Your task to perform on an android device: check out phone information Image 0: 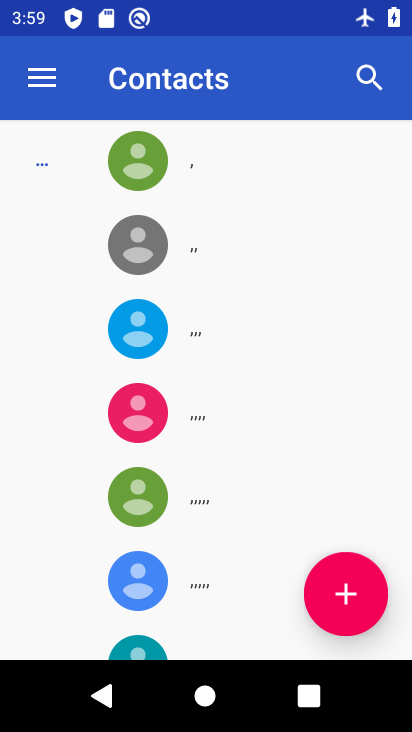
Step 0: press back button
Your task to perform on an android device: check out phone information Image 1: 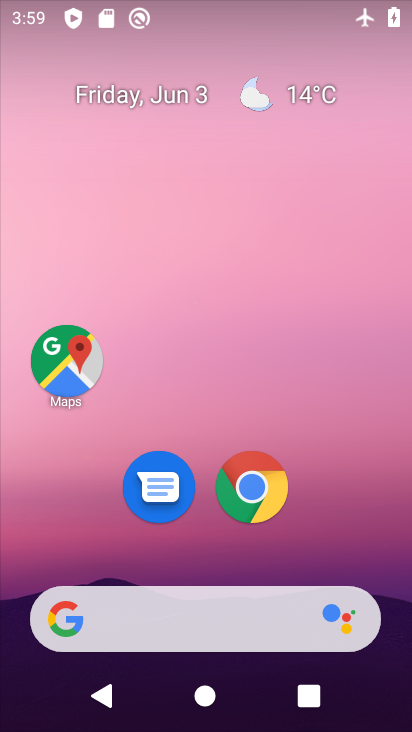
Step 1: drag from (203, 559) to (237, 72)
Your task to perform on an android device: check out phone information Image 2: 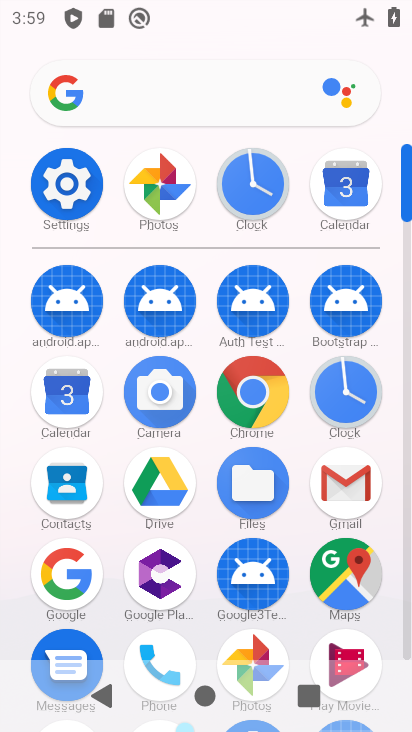
Step 2: click (66, 180)
Your task to perform on an android device: check out phone information Image 3: 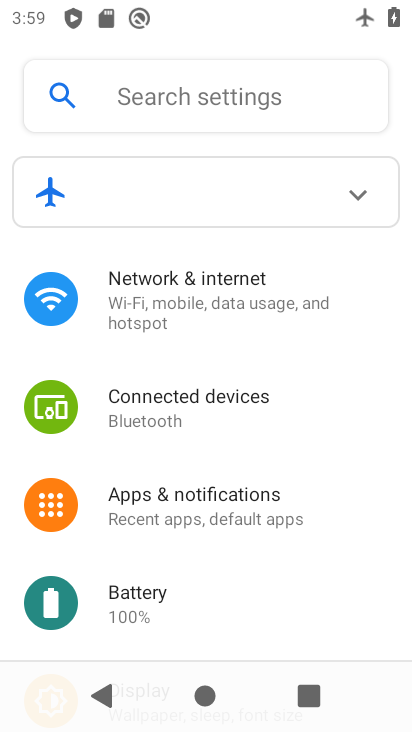
Step 3: drag from (198, 612) to (268, 9)
Your task to perform on an android device: check out phone information Image 4: 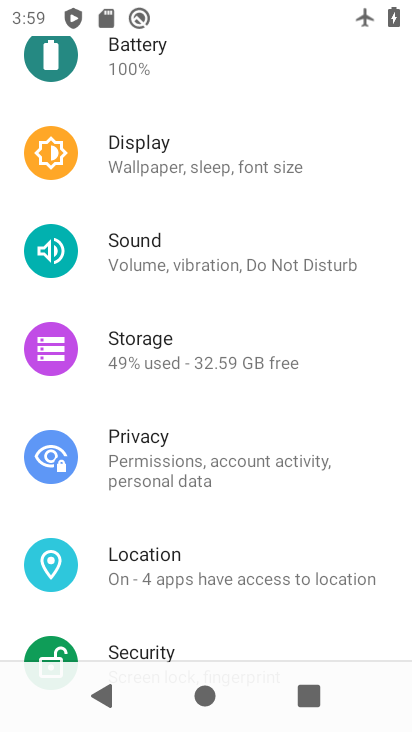
Step 4: drag from (212, 540) to (260, 22)
Your task to perform on an android device: check out phone information Image 5: 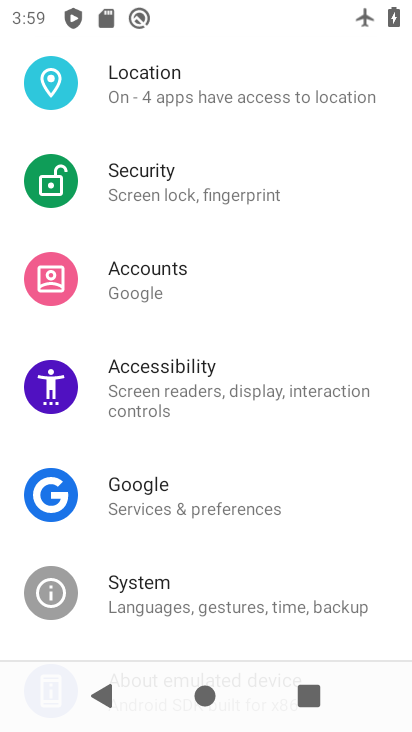
Step 5: drag from (178, 569) to (255, 2)
Your task to perform on an android device: check out phone information Image 6: 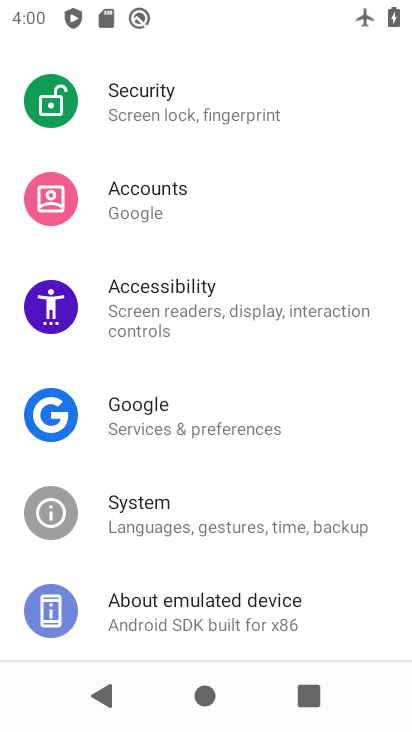
Step 6: drag from (187, 595) to (252, 32)
Your task to perform on an android device: check out phone information Image 7: 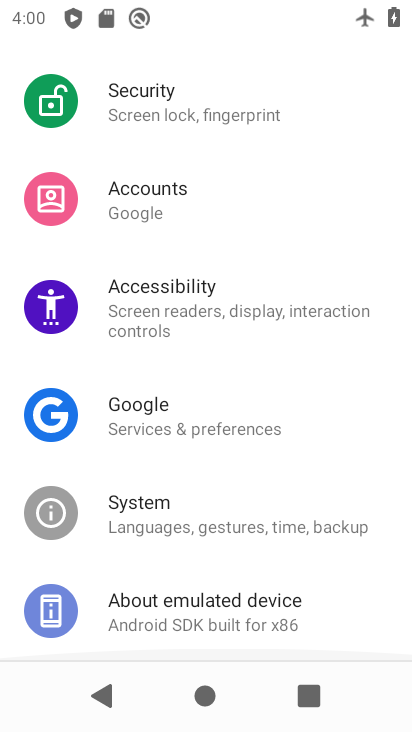
Step 7: click (139, 603)
Your task to perform on an android device: check out phone information Image 8: 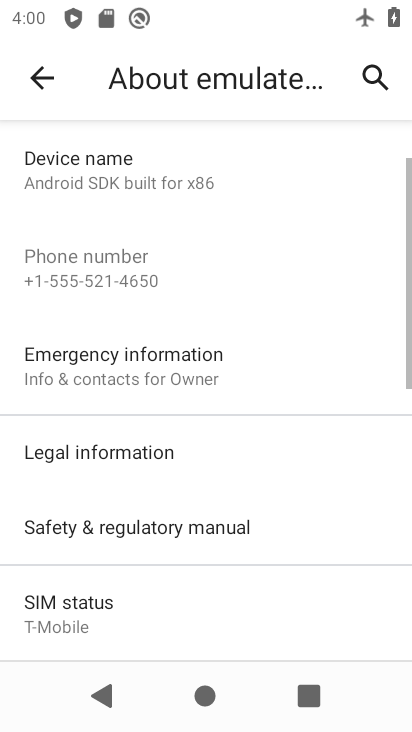
Step 8: task complete